Your task to perform on an android device: open app "Microsoft Outlook" (install if not already installed) Image 0: 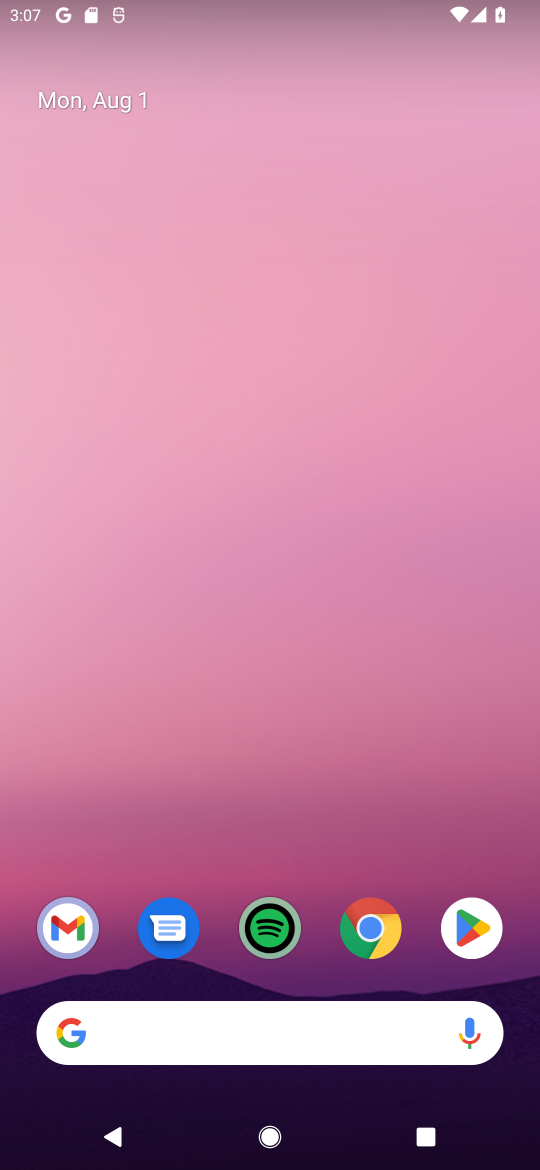
Step 0: press home button
Your task to perform on an android device: open app "Microsoft Outlook" (install if not already installed) Image 1: 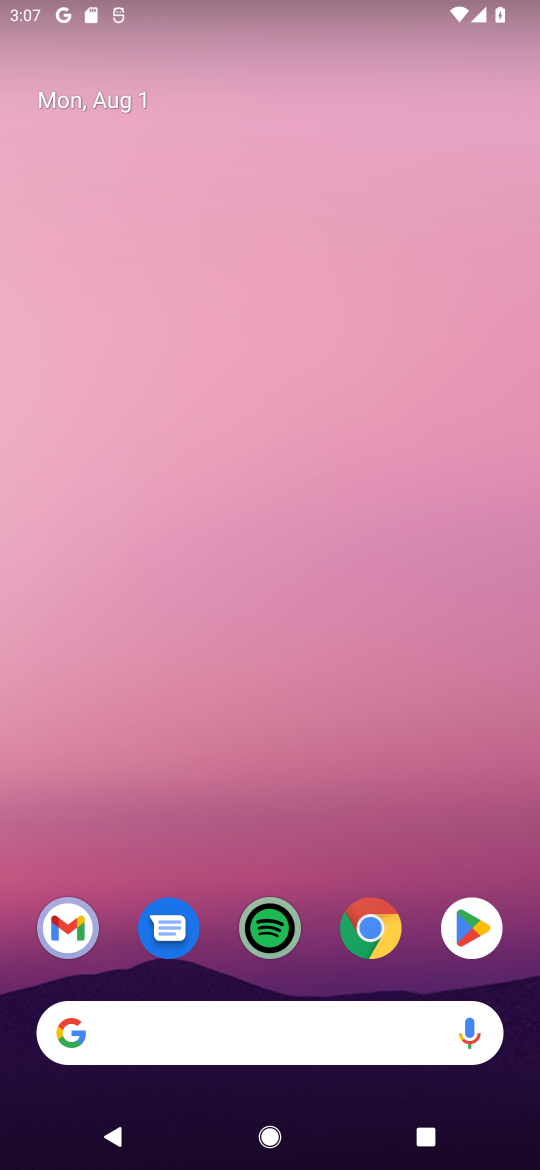
Step 1: click (451, 940)
Your task to perform on an android device: open app "Microsoft Outlook" (install if not already installed) Image 2: 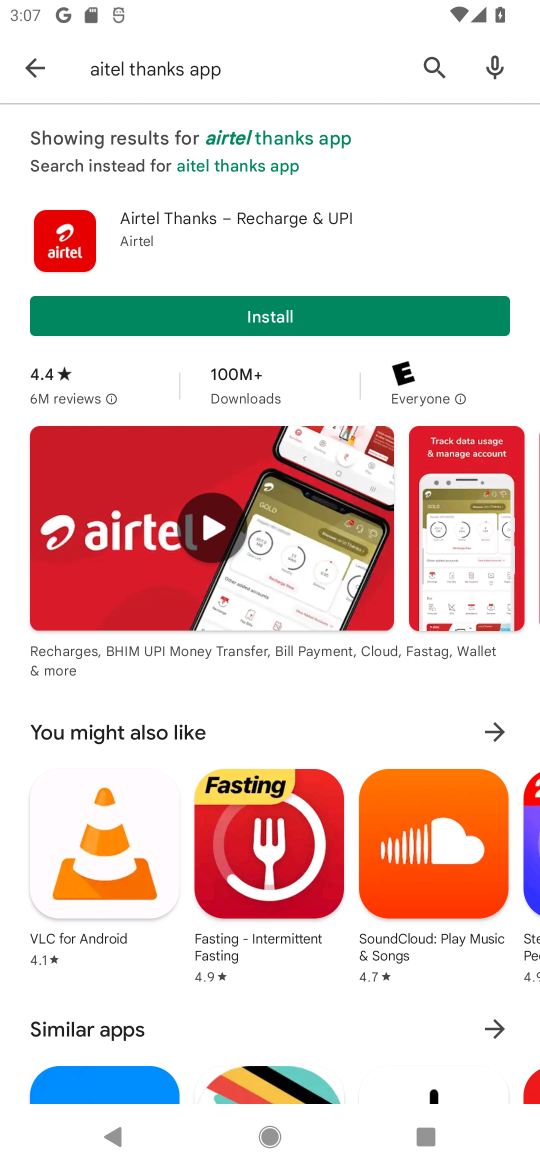
Step 2: click (429, 69)
Your task to perform on an android device: open app "Microsoft Outlook" (install if not already installed) Image 3: 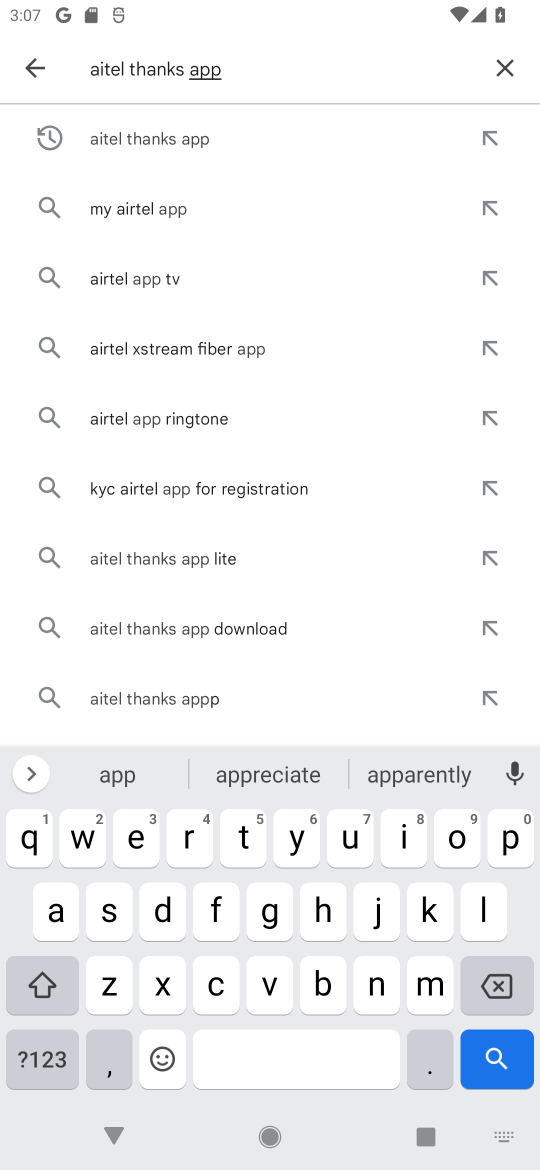
Step 3: click (497, 64)
Your task to perform on an android device: open app "Microsoft Outlook" (install if not already installed) Image 4: 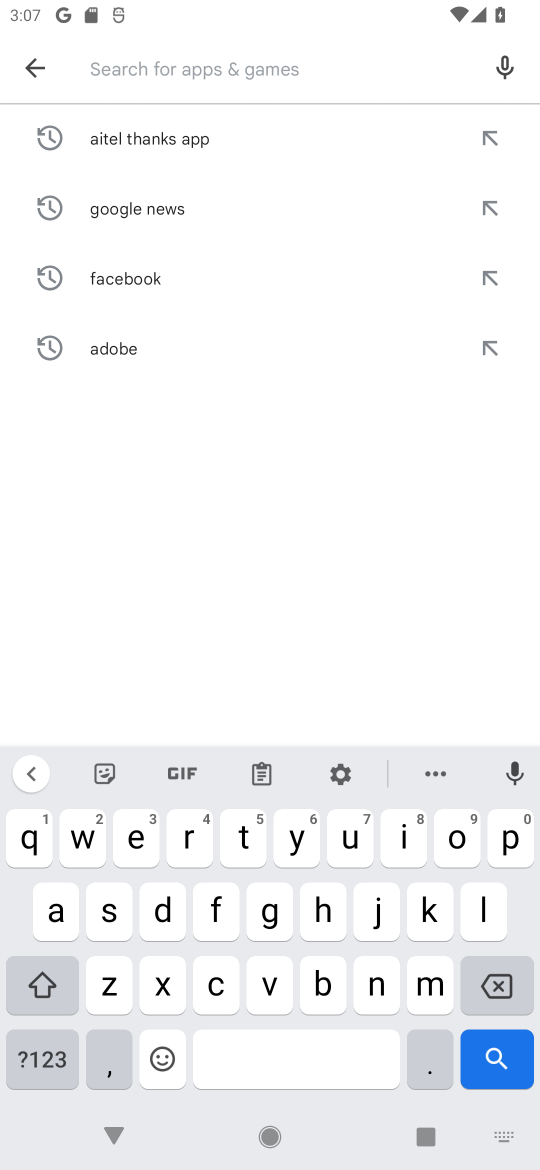
Step 4: click (446, 851)
Your task to perform on an android device: open app "Microsoft Outlook" (install if not already installed) Image 5: 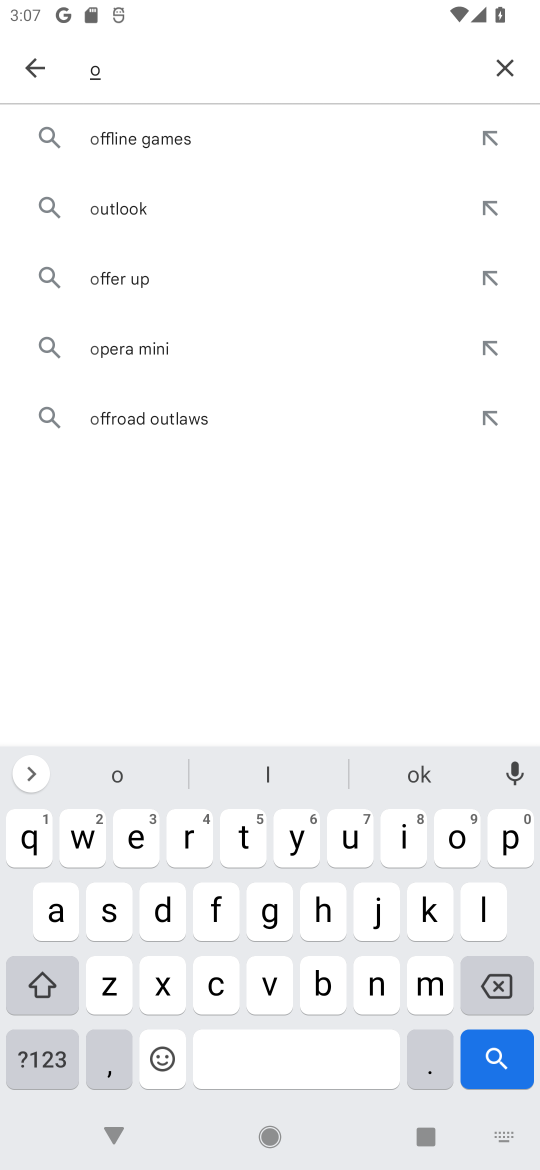
Step 5: click (340, 839)
Your task to perform on an android device: open app "Microsoft Outlook" (install if not already installed) Image 6: 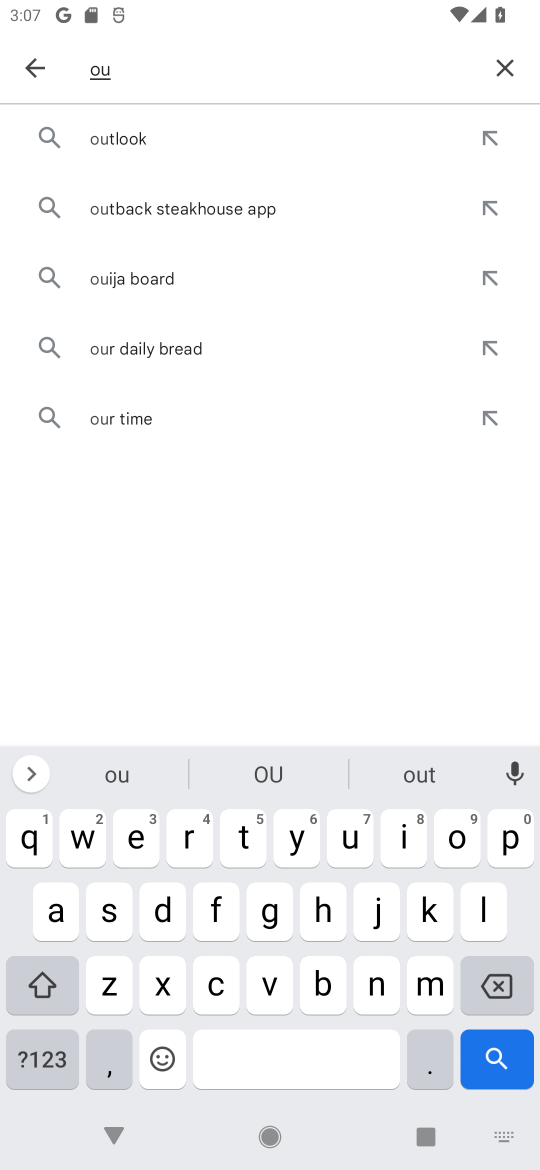
Step 6: click (137, 133)
Your task to perform on an android device: open app "Microsoft Outlook" (install if not already installed) Image 7: 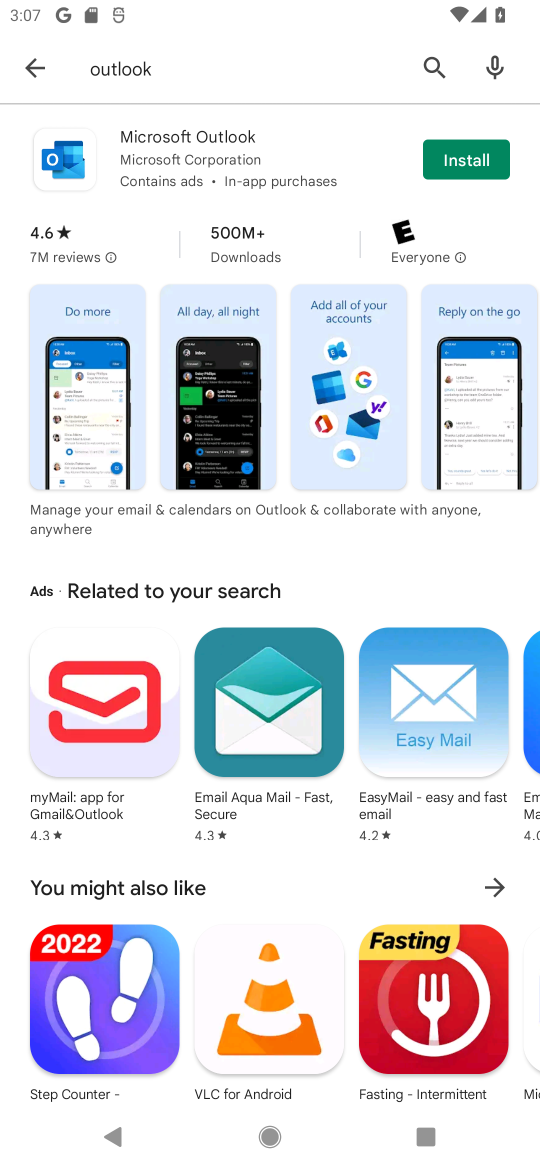
Step 7: click (451, 158)
Your task to perform on an android device: open app "Microsoft Outlook" (install if not already installed) Image 8: 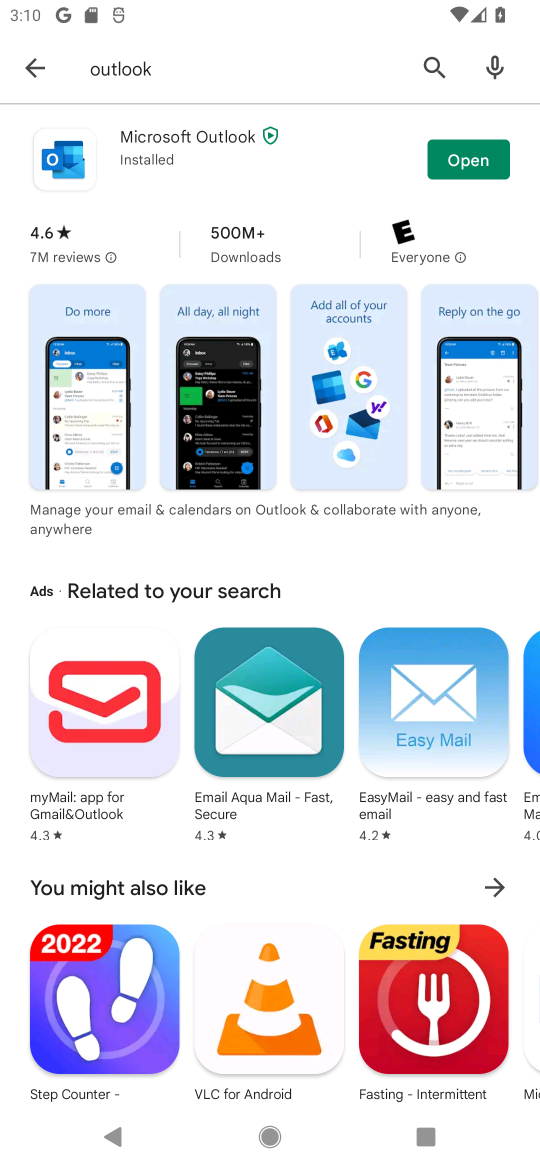
Step 8: click (451, 158)
Your task to perform on an android device: open app "Microsoft Outlook" (install if not already installed) Image 9: 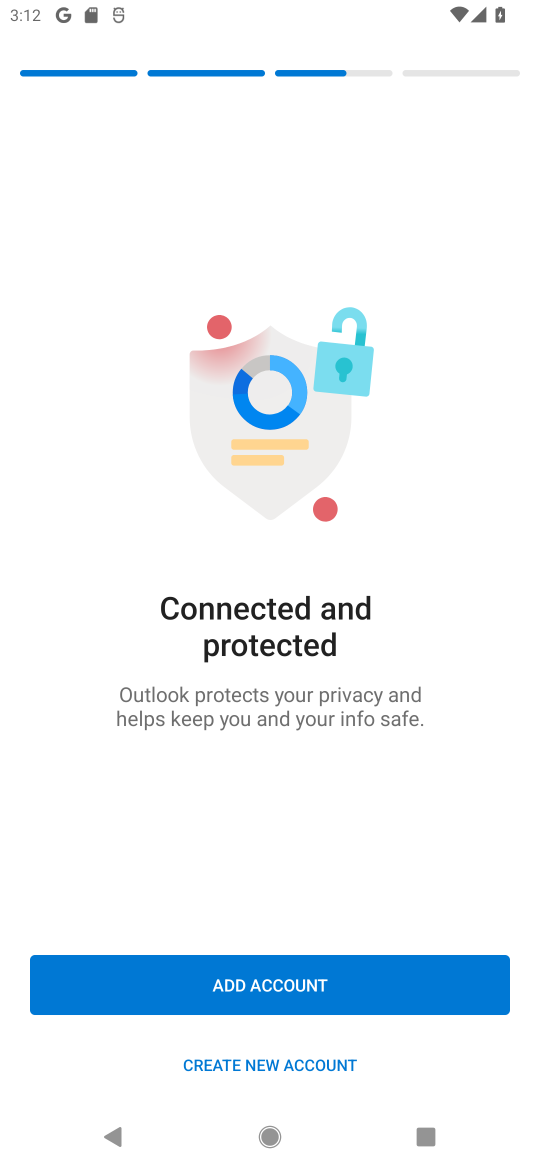
Step 9: task complete